Your task to perform on an android device: Search for Italian restaurants on Maps Image 0: 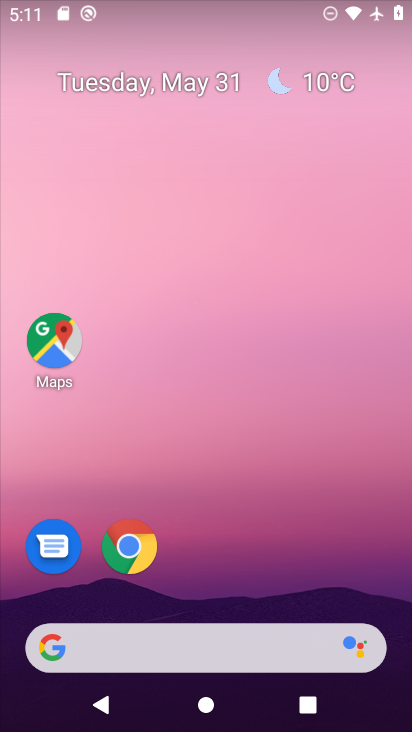
Step 0: click (68, 340)
Your task to perform on an android device: Search for Italian restaurants on Maps Image 1: 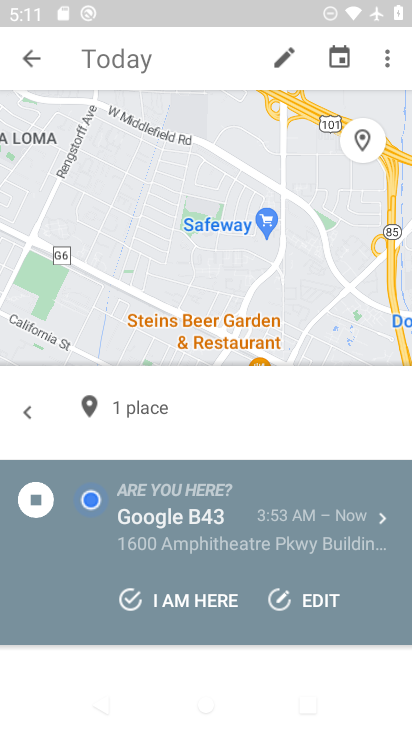
Step 1: click (23, 59)
Your task to perform on an android device: Search for Italian restaurants on Maps Image 2: 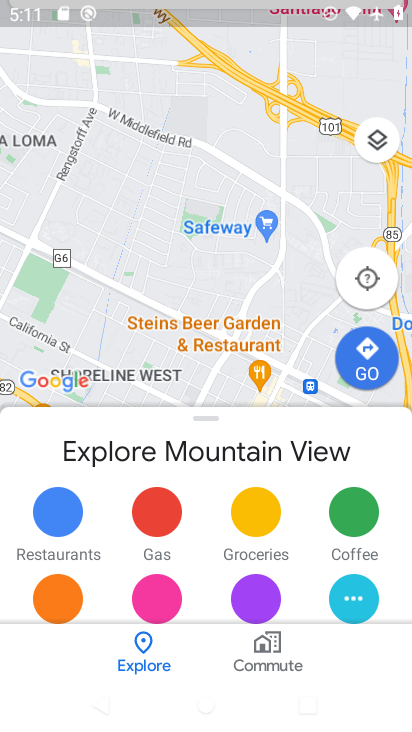
Step 2: click (185, 59)
Your task to perform on an android device: Search for Italian restaurants on Maps Image 3: 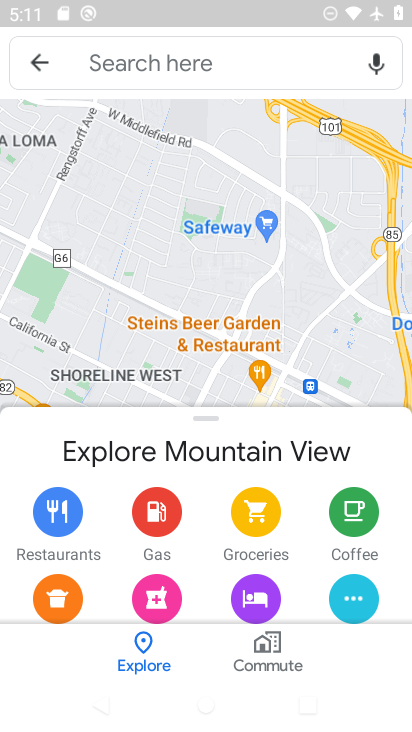
Step 3: click (185, 58)
Your task to perform on an android device: Search for Italian restaurants on Maps Image 4: 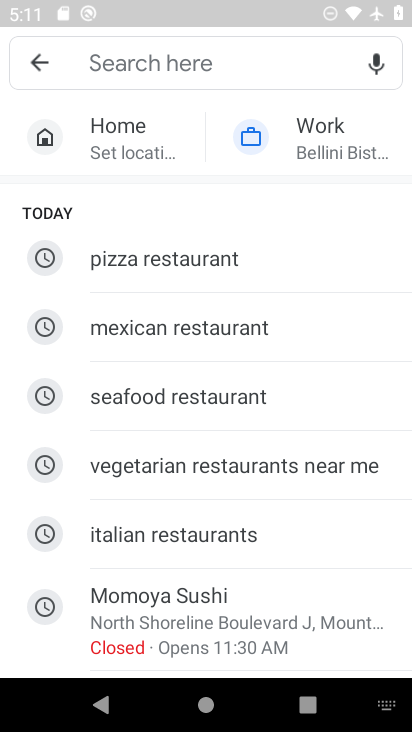
Step 4: click (190, 538)
Your task to perform on an android device: Search for Italian restaurants on Maps Image 5: 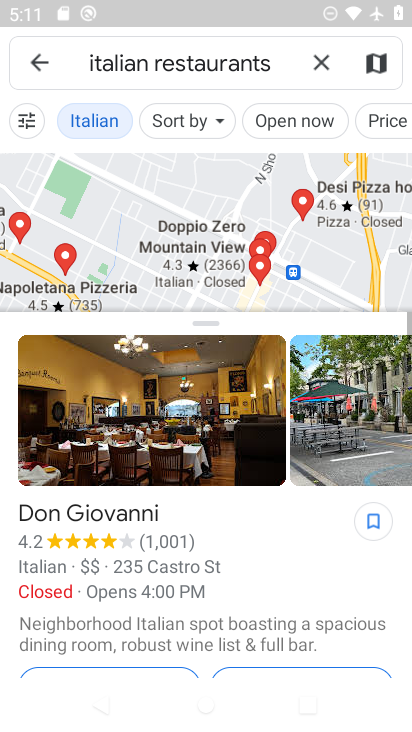
Step 5: task complete